Your task to perform on an android device: turn off sleep mode Image 0: 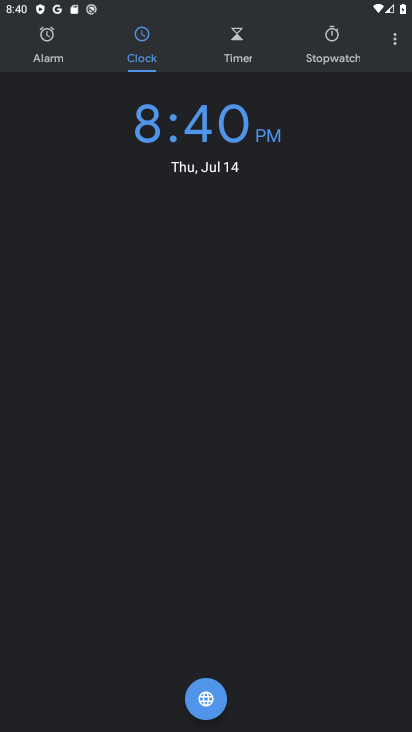
Step 0: press home button
Your task to perform on an android device: turn off sleep mode Image 1: 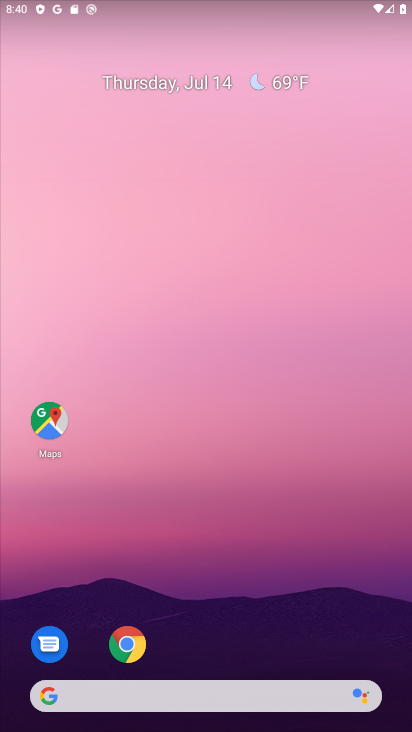
Step 1: drag from (207, 650) to (198, 38)
Your task to perform on an android device: turn off sleep mode Image 2: 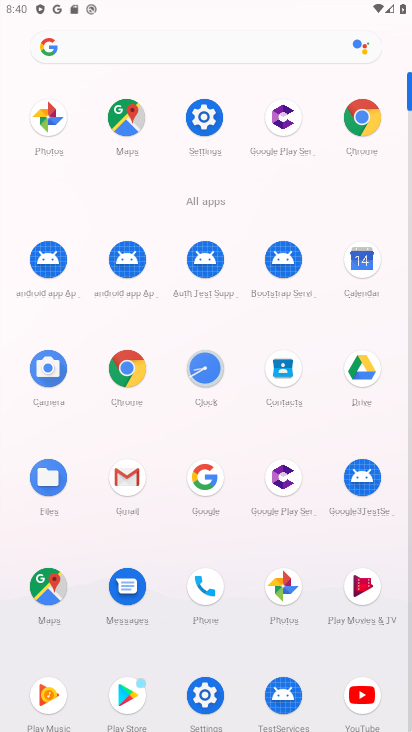
Step 2: click (211, 120)
Your task to perform on an android device: turn off sleep mode Image 3: 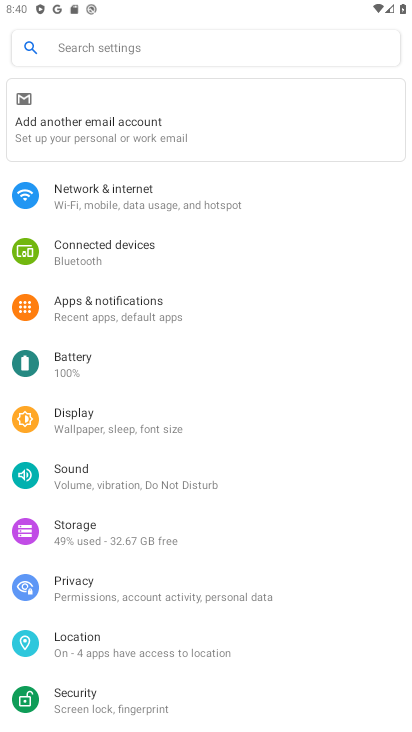
Step 3: task complete